Your task to perform on an android device: check storage Image 0: 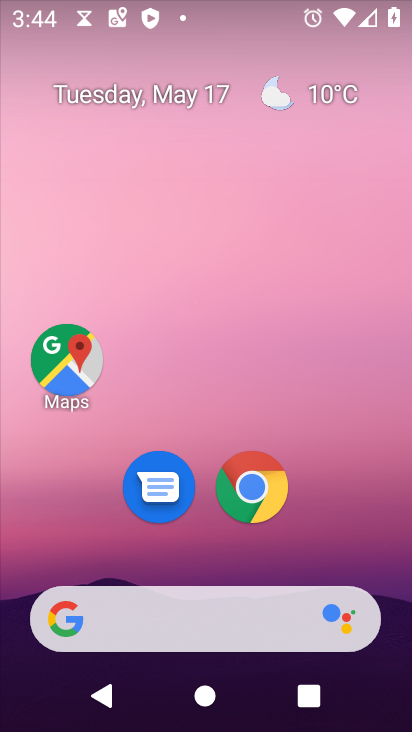
Step 0: click (256, 487)
Your task to perform on an android device: check storage Image 1: 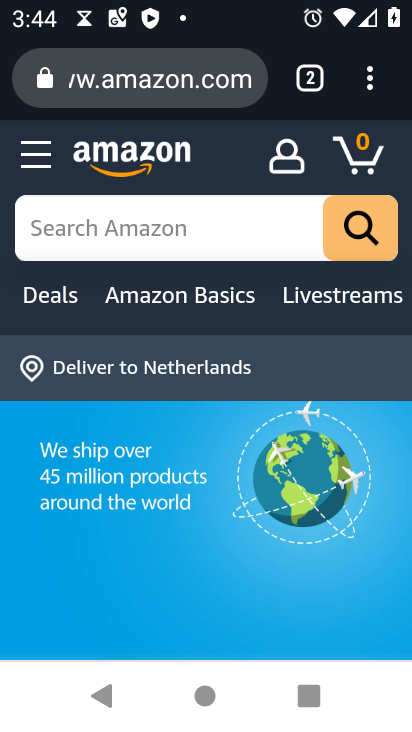
Step 1: press home button
Your task to perform on an android device: check storage Image 2: 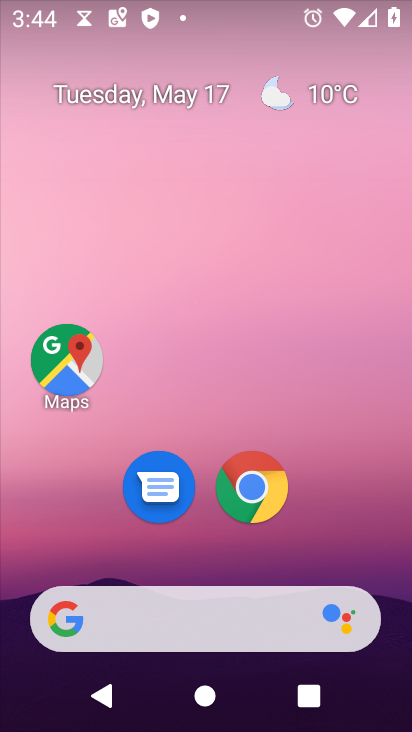
Step 2: drag from (393, 616) to (362, 117)
Your task to perform on an android device: check storage Image 3: 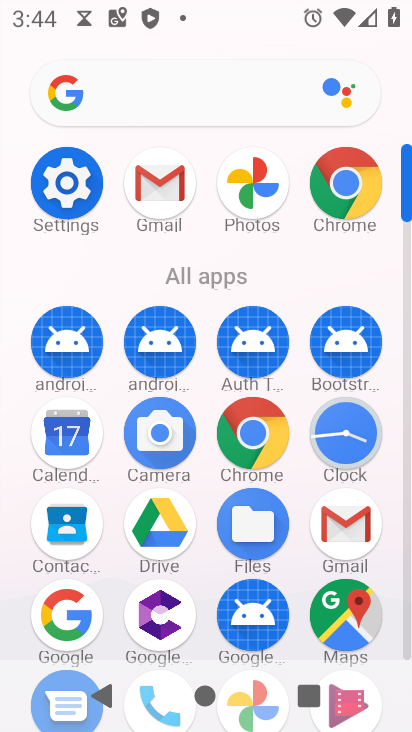
Step 3: click (410, 645)
Your task to perform on an android device: check storage Image 4: 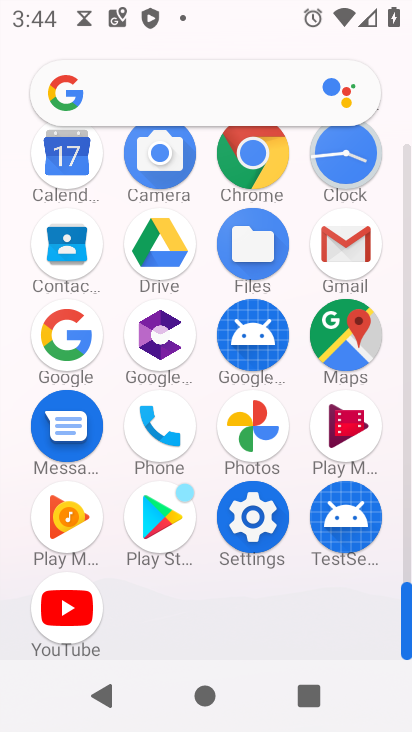
Step 4: click (255, 518)
Your task to perform on an android device: check storage Image 5: 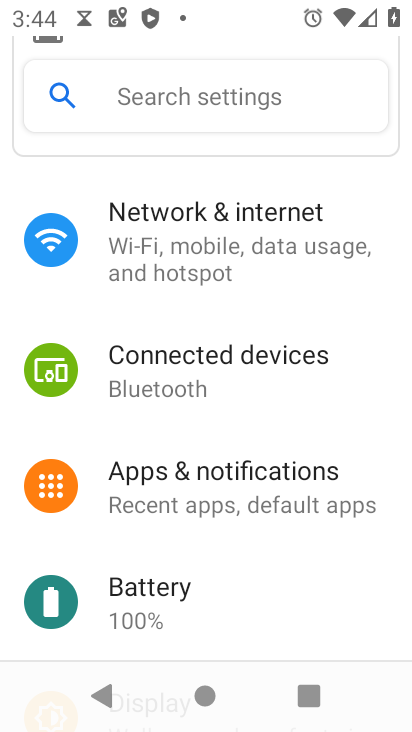
Step 5: drag from (300, 619) to (342, 192)
Your task to perform on an android device: check storage Image 6: 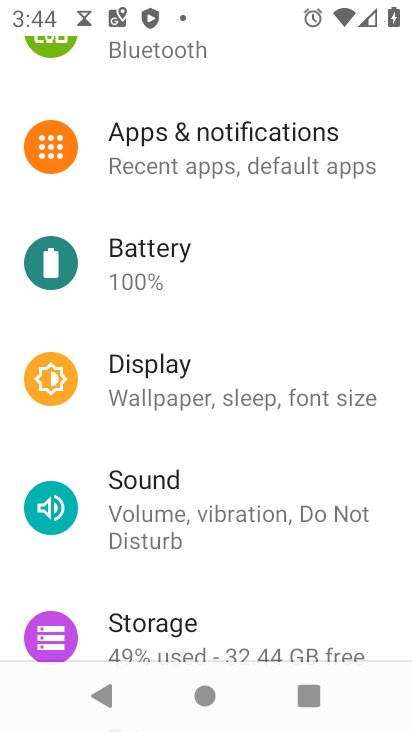
Step 6: drag from (322, 589) to (368, 212)
Your task to perform on an android device: check storage Image 7: 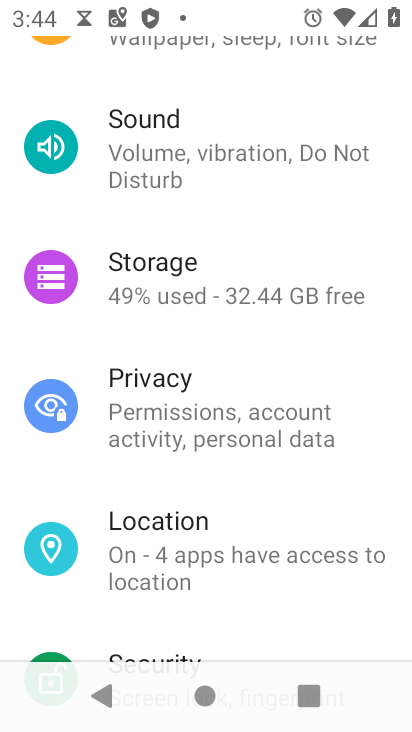
Step 7: click (136, 282)
Your task to perform on an android device: check storage Image 8: 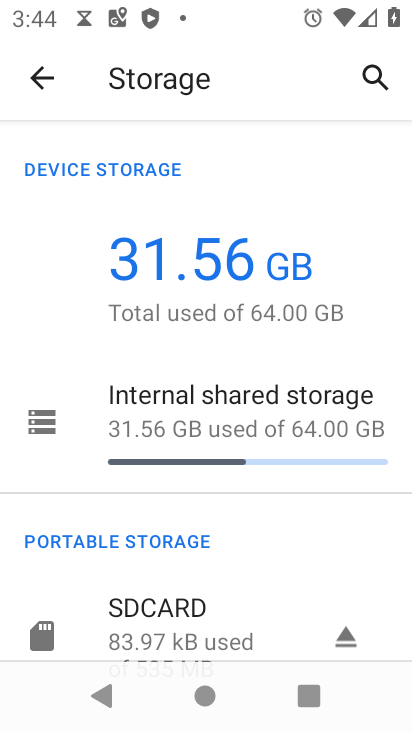
Step 8: task complete